Your task to perform on an android device: Open the calendar and show me this week's events? Image 0: 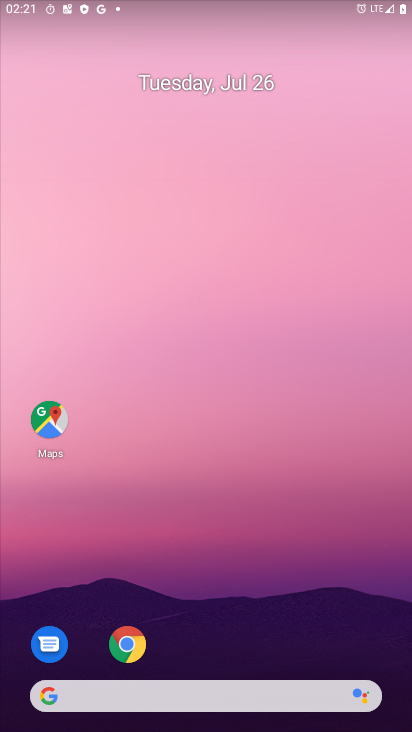
Step 0: drag from (246, 456) to (252, 60)
Your task to perform on an android device: Open the calendar and show me this week's events? Image 1: 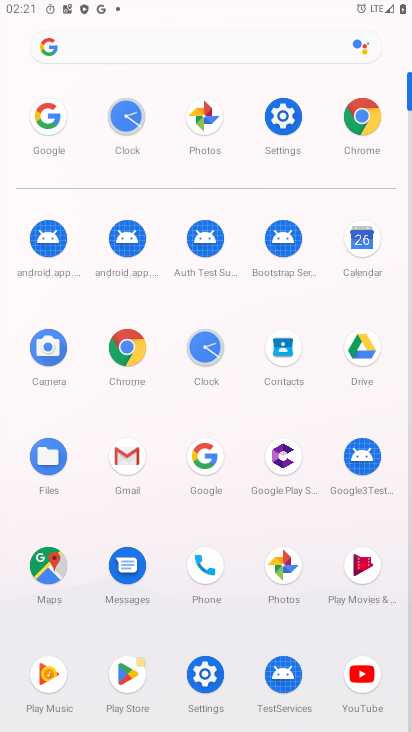
Step 1: click (354, 238)
Your task to perform on an android device: Open the calendar and show me this week's events? Image 2: 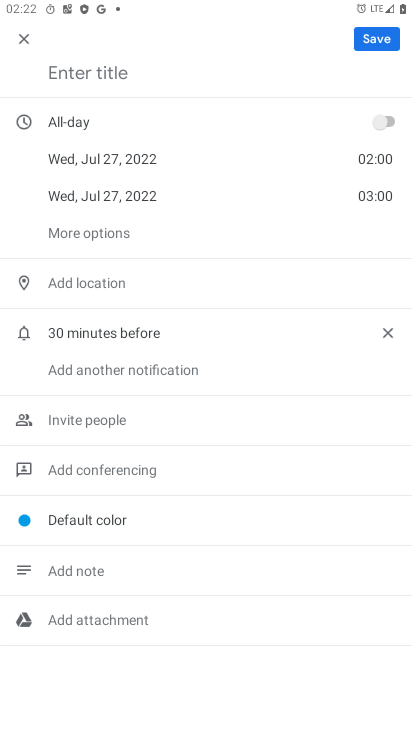
Step 2: click (20, 37)
Your task to perform on an android device: Open the calendar and show me this week's events? Image 3: 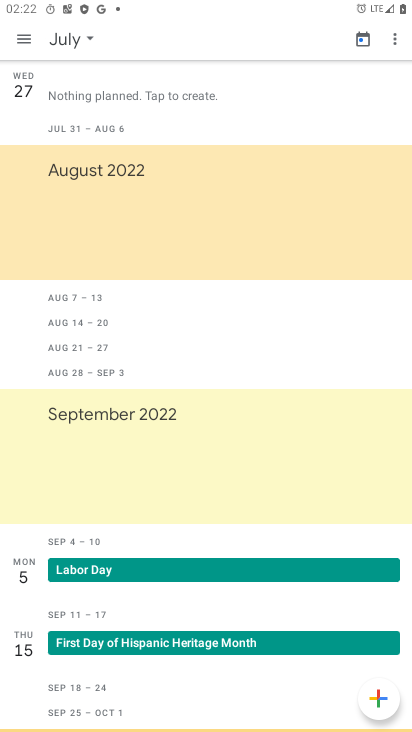
Step 3: click (26, 41)
Your task to perform on an android device: Open the calendar and show me this week's events? Image 4: 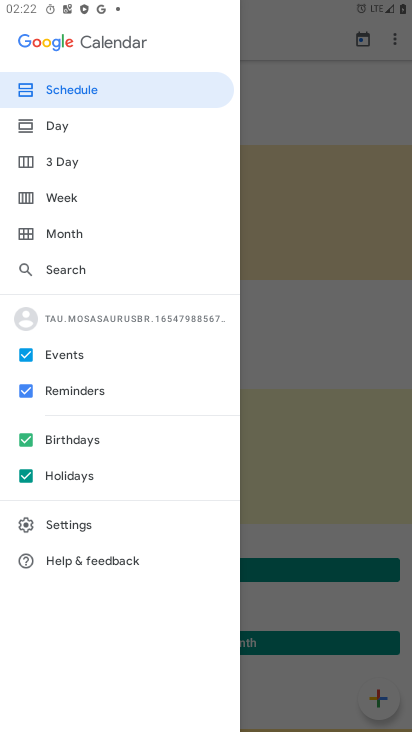
Step 4: click (26, 392)
Your task to perform on an android device: Open the calendar and show me this week's events? Image 5: 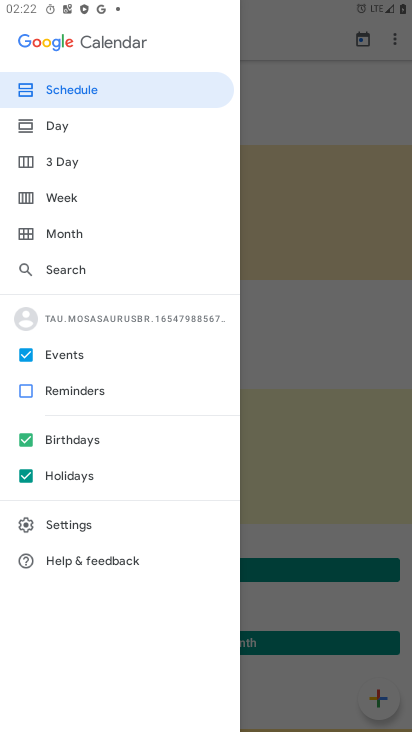
Step 5: click (22, 443)
Your task to perform on an android device: Open the calendar and show me this week's events? Image 6: 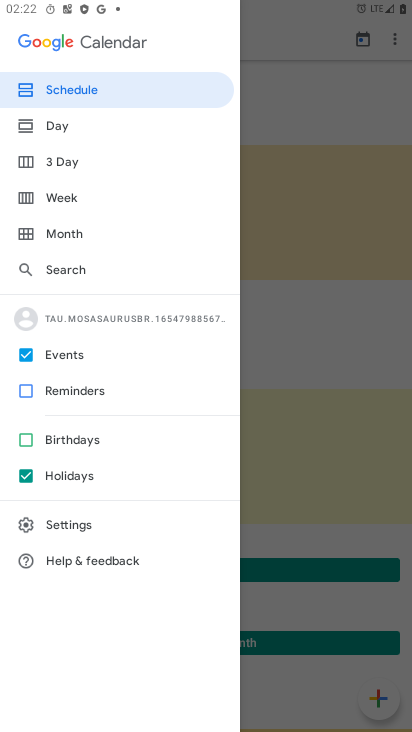
Step 6: click (23, 478)
Your task to perform on an android device: Open the calendar and show me this week's events? Image 7: 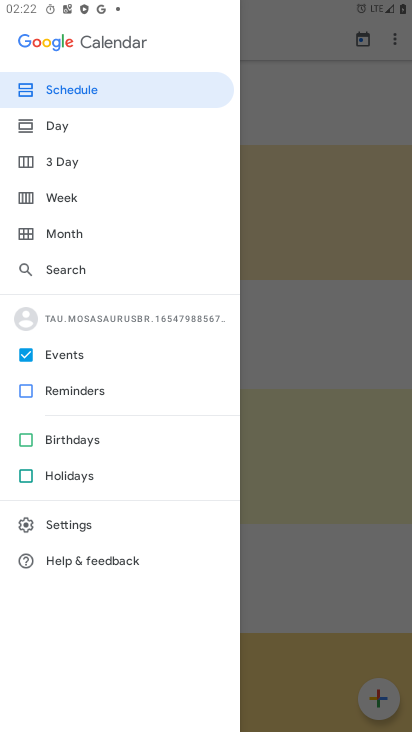
Step 7: click (35, 201)
Your task to perform on an android device: Open the calendar and show me this week's events? Image 8: 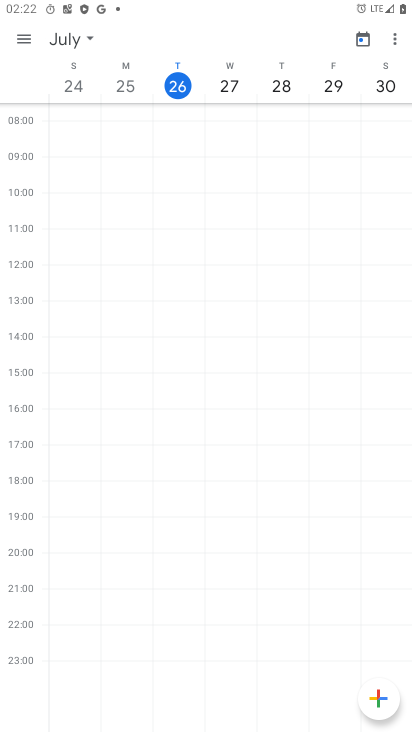
Step 8: drag from (271, 609) to (269, 394)
Your task to perform on an android device: Open the calendar and show me this week's events? Image 9: 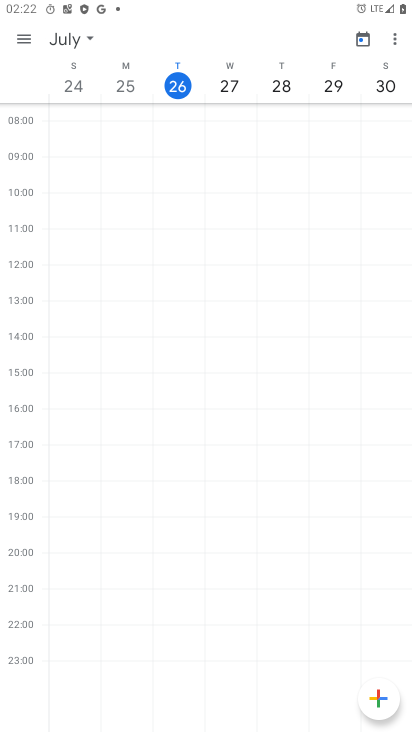
Step 9: drag from (269, 297) to (267, 639)
Your task to perform on an android device: Open the calendar and show me this week's events? Image 10: 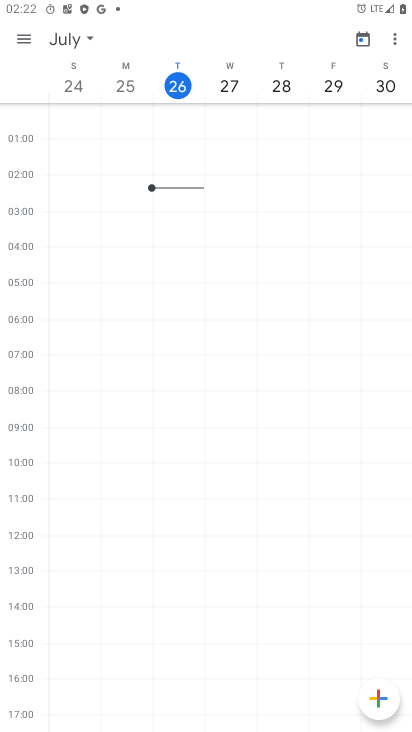
Step 10: drag from (242, 264) to (249, 426)
Your task to perform on an android device: Open the calendar and show me this week's events? Image 11: 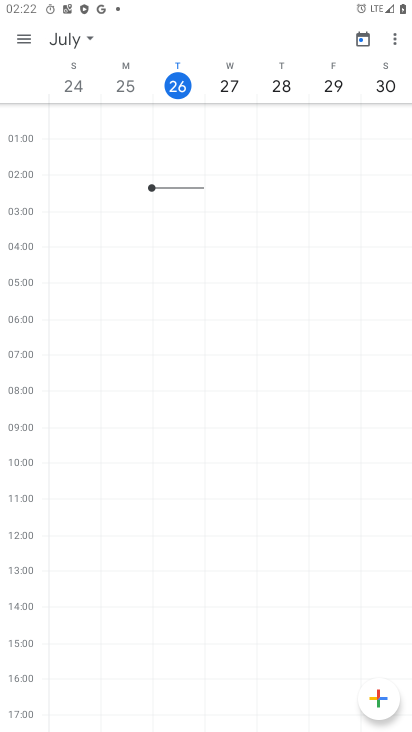
Step 11: click (154, 190)
Your task to perform on an android device: Open the calendar and show me this week's events? Image 12: 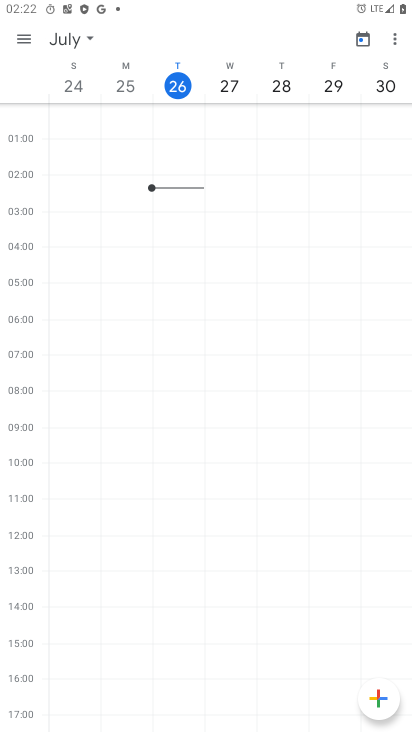
Step 12: click (171, 193)
Your task to perform on an android device: Open the calendar and show me this week's events? Image 13: 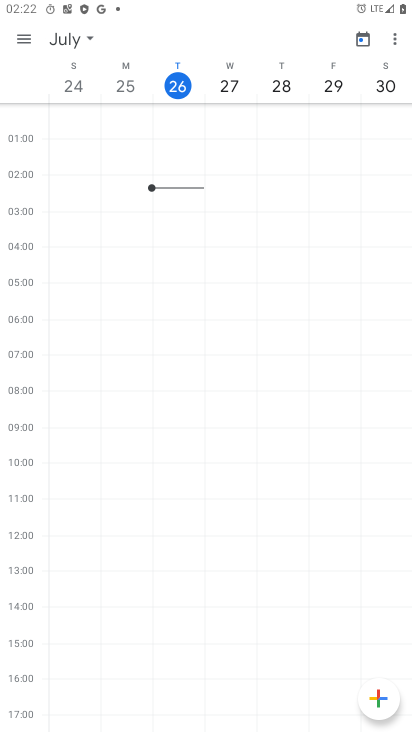
Step 13: task complete